Your task to perform on an android device: turn on bluetooth scan Image 0: 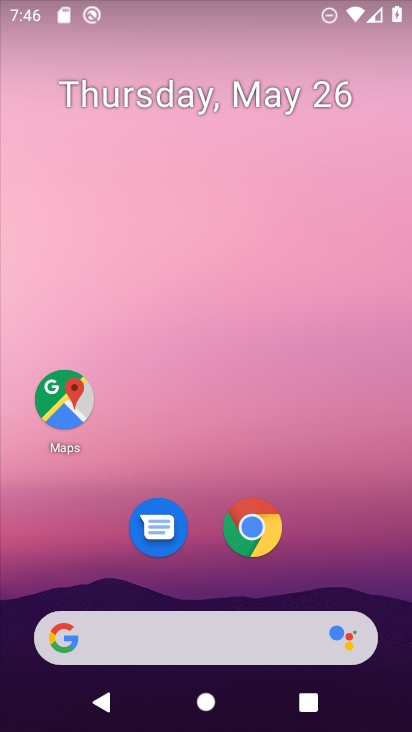
Step 0: press home button
Your task to perform on an android device: turn on bluetooth scan Image 1: 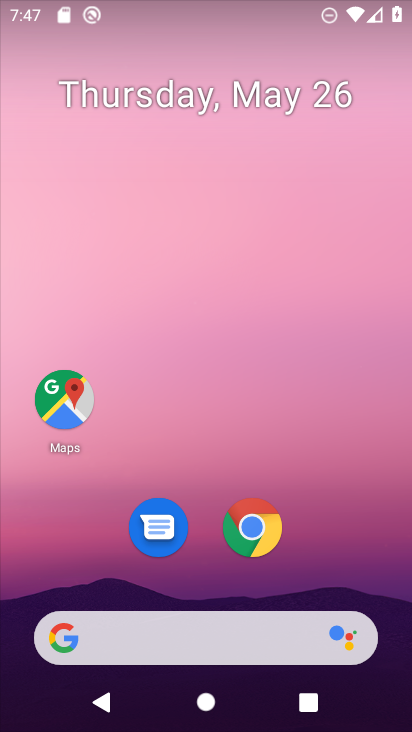
Step 1: drag from (29, 621) to (264, 114)
Your task to perform on an android device: turn on bluetooth scan Image 2: 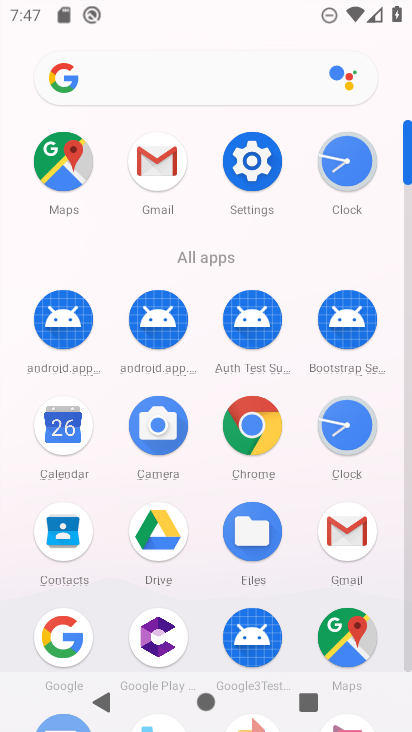
Step 2: click (257, 156)
Your task to perform on an android device: turn on bluetooth scan Image 3: 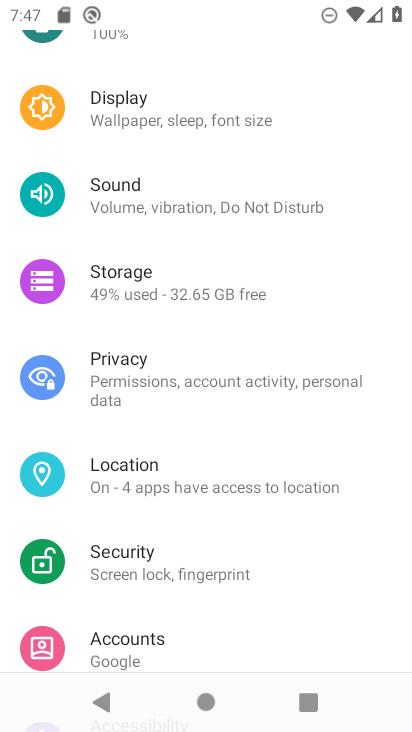
Step 3: click (150, 469)
Your task to perform on an android device: turn on bluetooth scan Image 4: 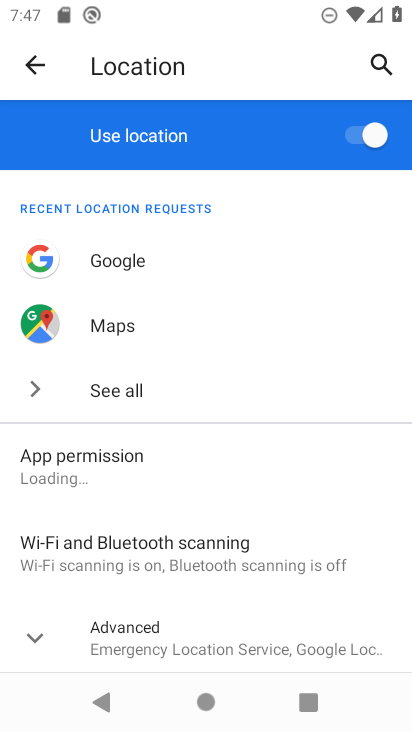
Step 4: click (99, 562)
Your task to perform on an android device: turn on bluetooth scan Image 5: 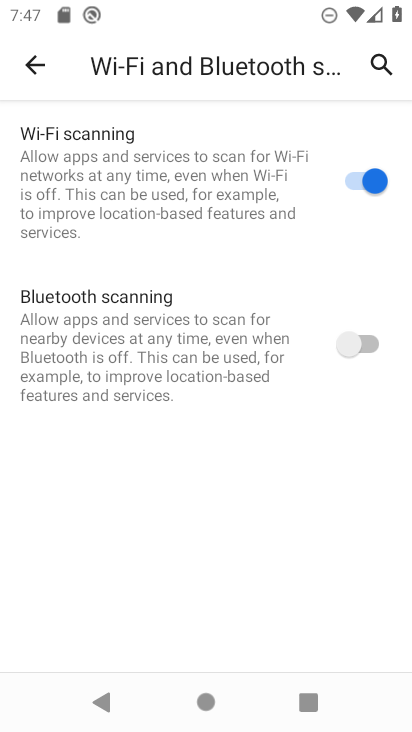
Step 5: click (344, 354)
Your task to perform on an android device: turn on bluetooth scan Image 6: 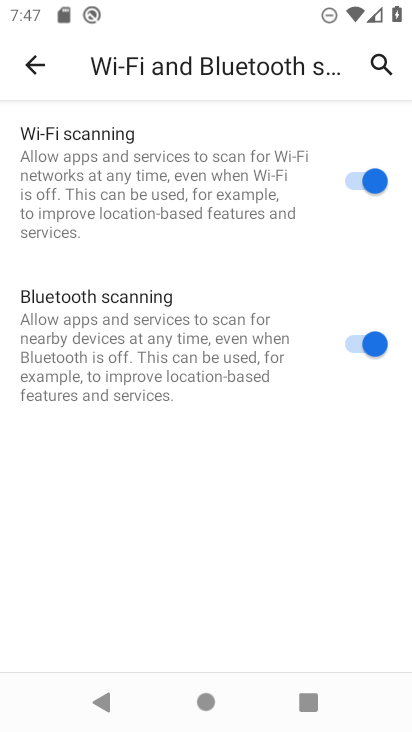
Step 6: task complete